Your task to perform on an android device: empty trash in the gmail app Image 0: 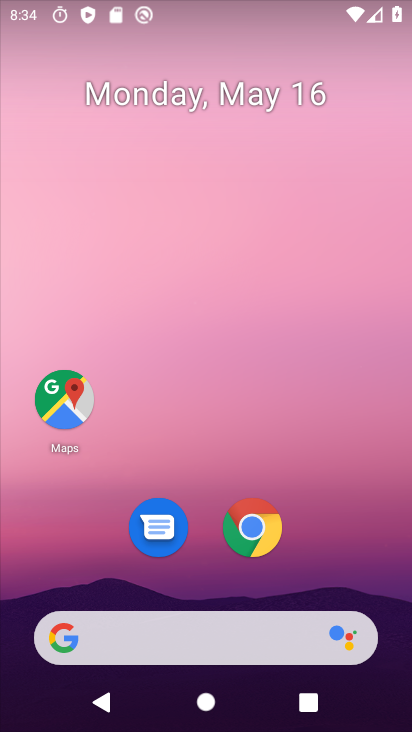
Step 0: drag from (100, 603) to (214, 162)
Your task to perform on an android device: empty trash in the gmail app Image 1: 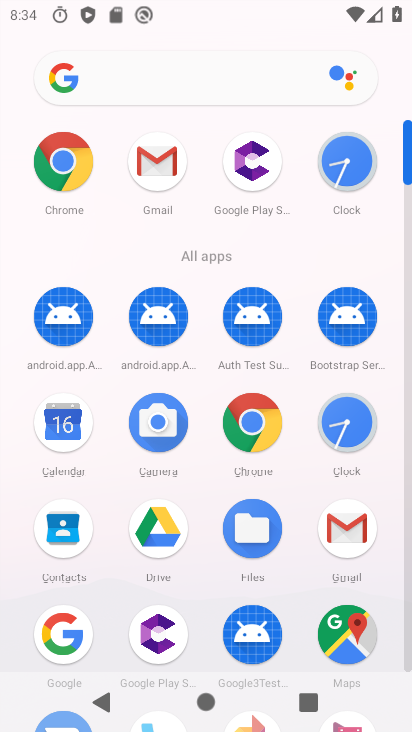
Step 1: click (329, 550)
Your task to perform on an android device: empty trash in the gmail app Image 2: 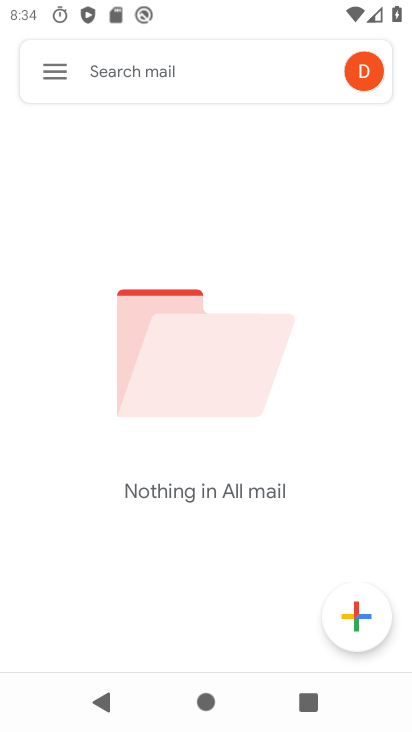
Step 2: click (50, 68)
Your task to perform on an android device: empty trash in the gmail app Image 3: 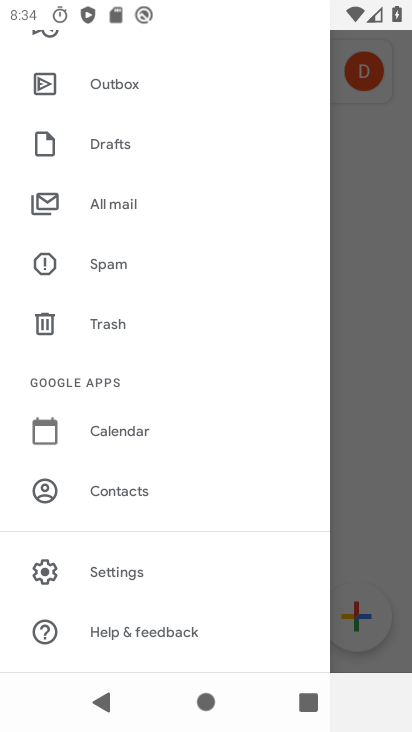
Step 3: click (150, 335)
Your task to perform on an android device: empty trash in the gmail app Image 4: 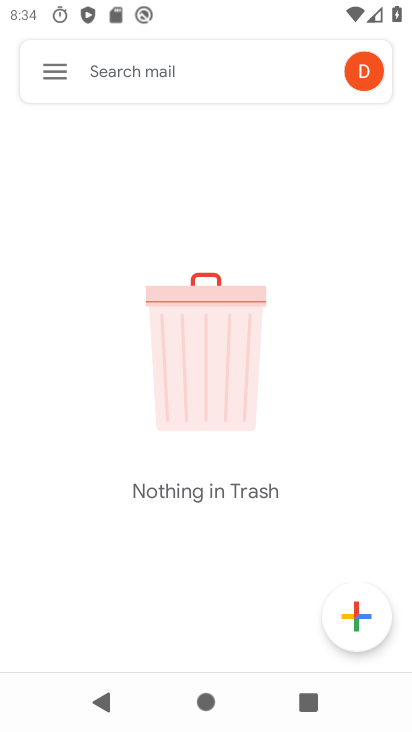
Step 4: task complete